Your task to perform on an android device: Open settings Image 0: 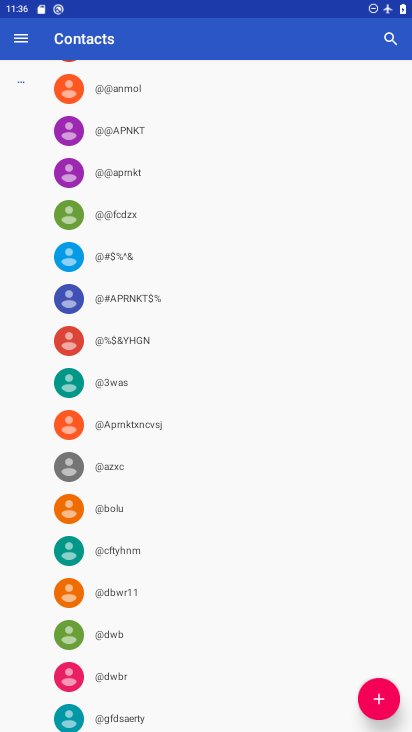
Step 0: press home button
Your task to perform on an android device: Open settings Image 1: 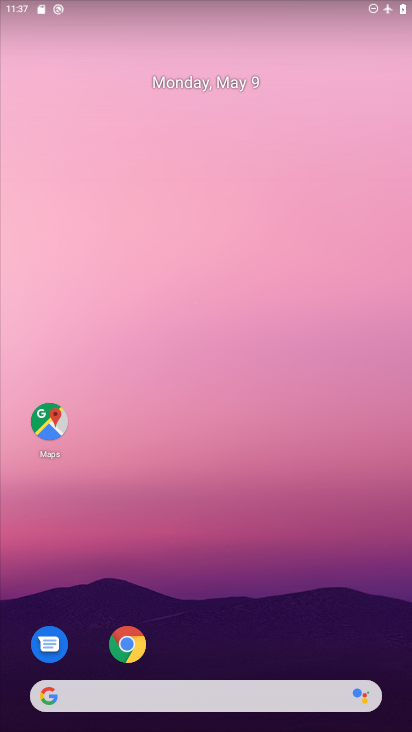
Step 1: drag from (228, 630) to (231, 125)
Your task to perform on an android device: Open settings Image 2: 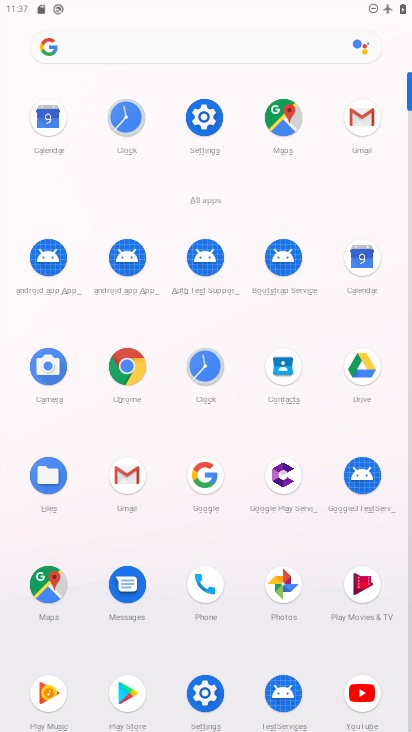
Step 2: click (217, 118)
Your task to perform on an android device: Open settings Image 3: 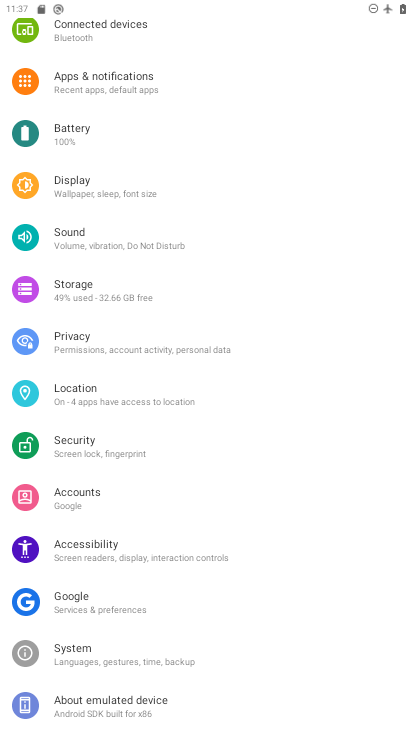
Step 3: task complete